Your task to perform on an android device: check data usage Image 0: 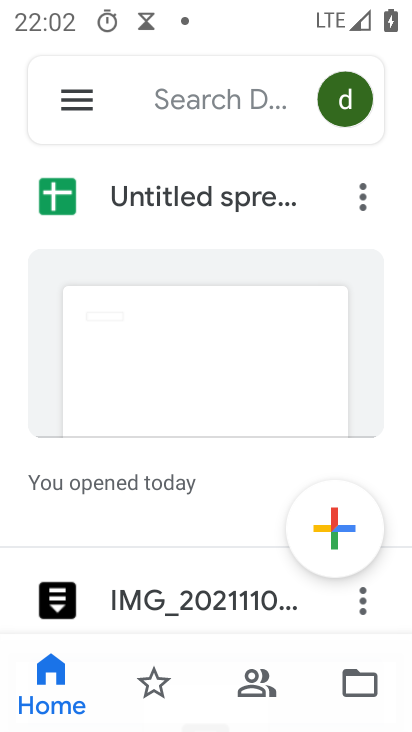
Step 0: press home button
Your task to perform on an android device: check data usage Image 1: 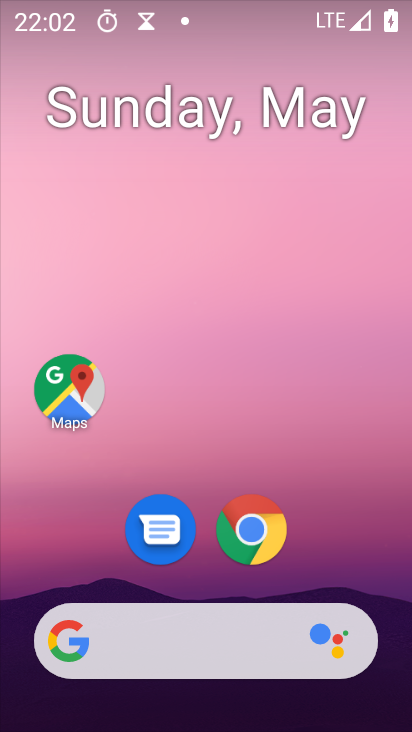
Step 1: drag from (326, 576) to (286, 45)
Your task to perform on an android device: check data usage Image 2: 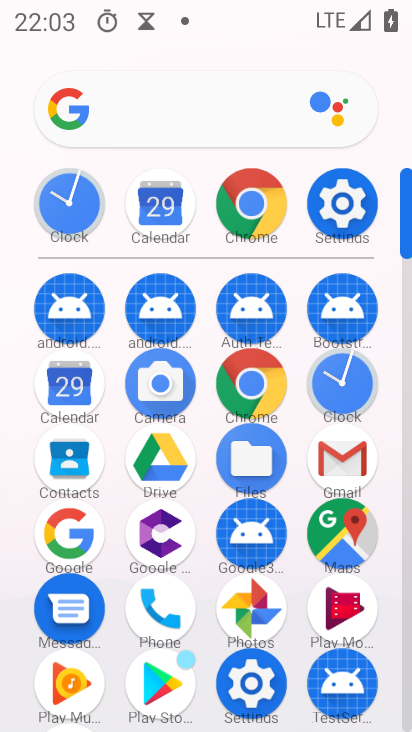
Step 2: click (249, 689)
Your task to perform on an android device: check data usage Image 3: 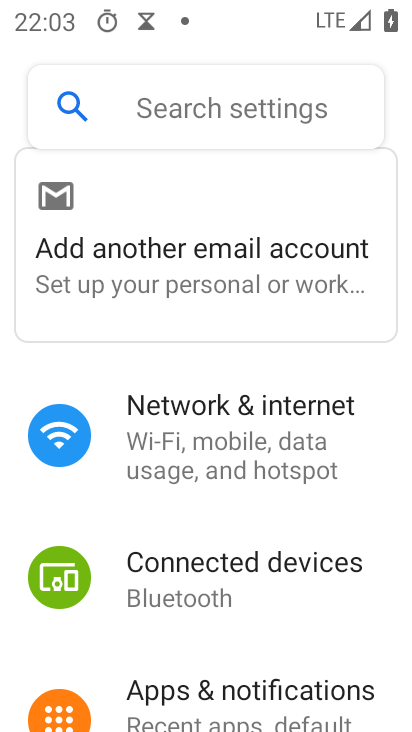
Step 3: click (244, 428)
Your task to perform on an android device: check data usage Image 4: 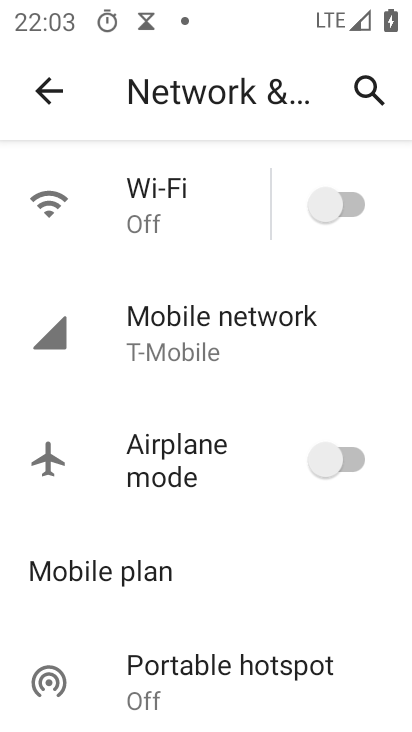
Step 4: click (194, 359)
Your task to perform on an android device: check data usage Image 5: 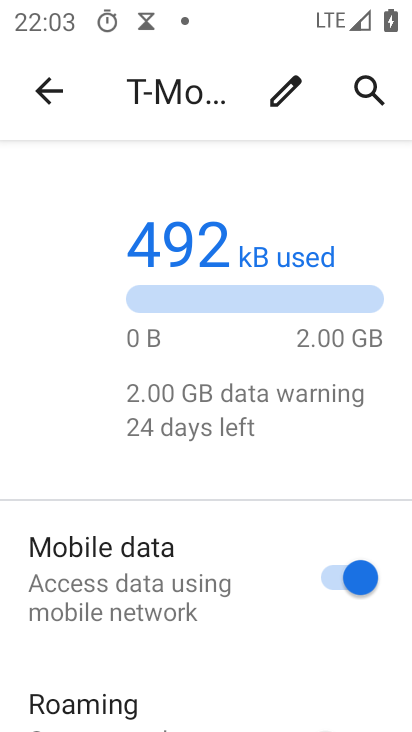
Step 5: drag from (209, 618) to (176, 196)
Your task to perform on an android device: check data usage Image 6: 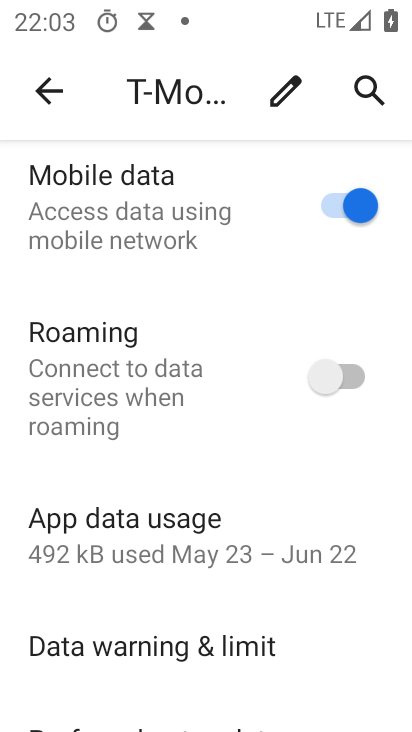
Step 6: click (134, 512)
Your task to perform on an android device: check data usage Image 7: 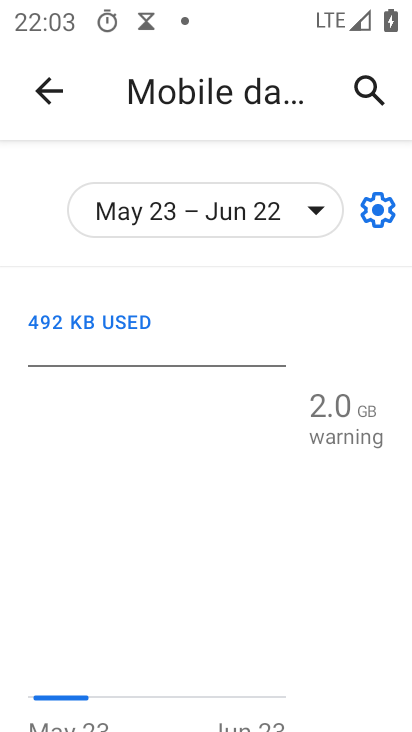
Step 7: task complete